Your task to perform on an android device: Search for a new eyeliner Image 0: 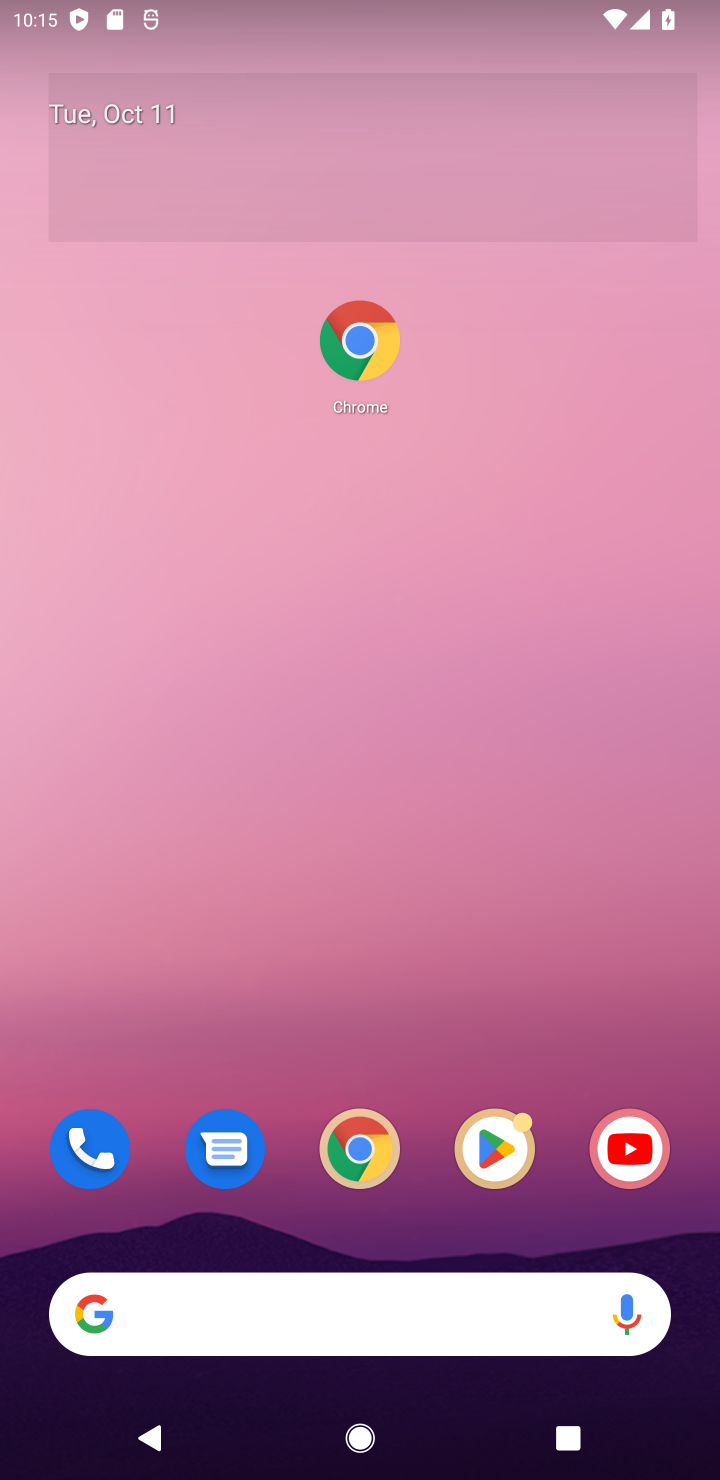
Step 0: drag from (337, 1276) to (567, 573)
Your task to perform on an android device: Search for a new eyeliner Image 1: 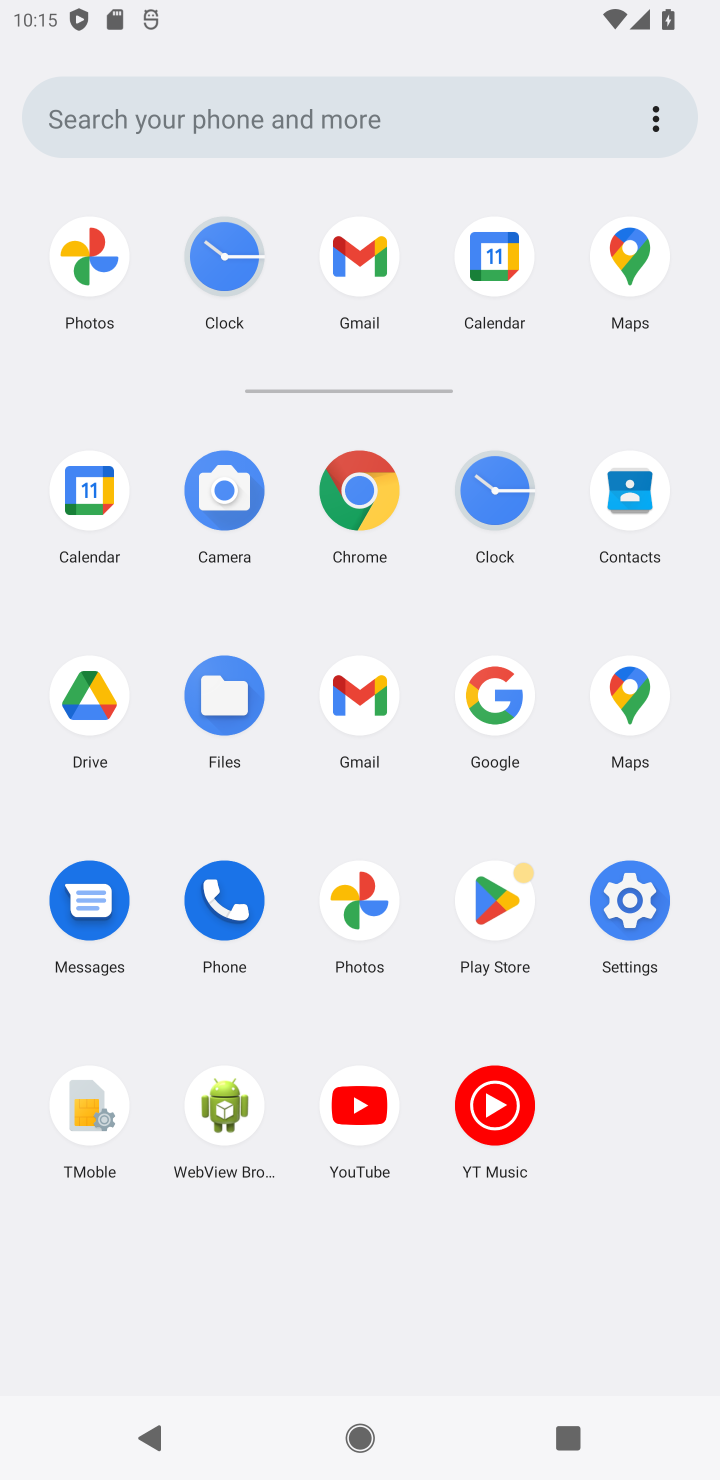
Step 1: click (372, 495)
Your task to perform on an android device: Search for a new eyeliner Image 2: 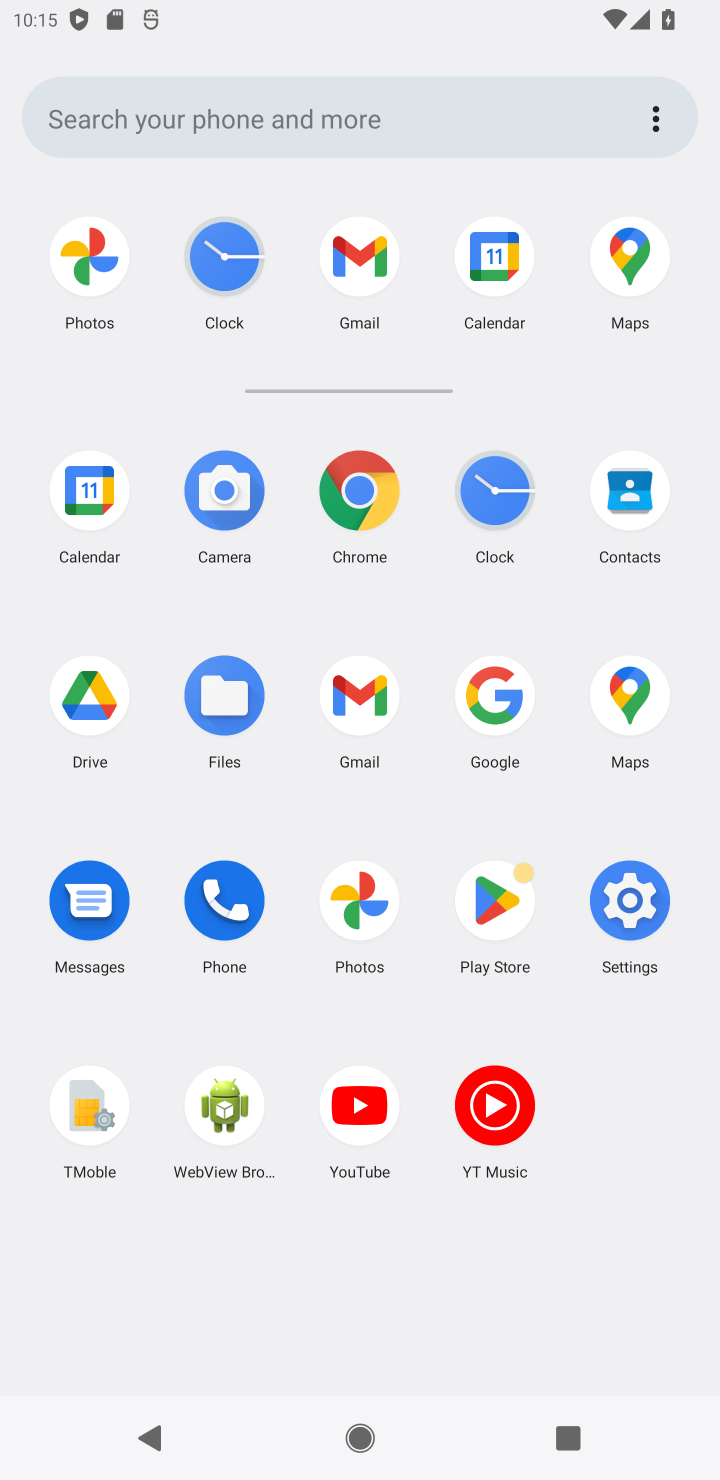
Step 2: click (345, 506)
Your task to perform on an android device: Search for a new eyeliner Image 3: 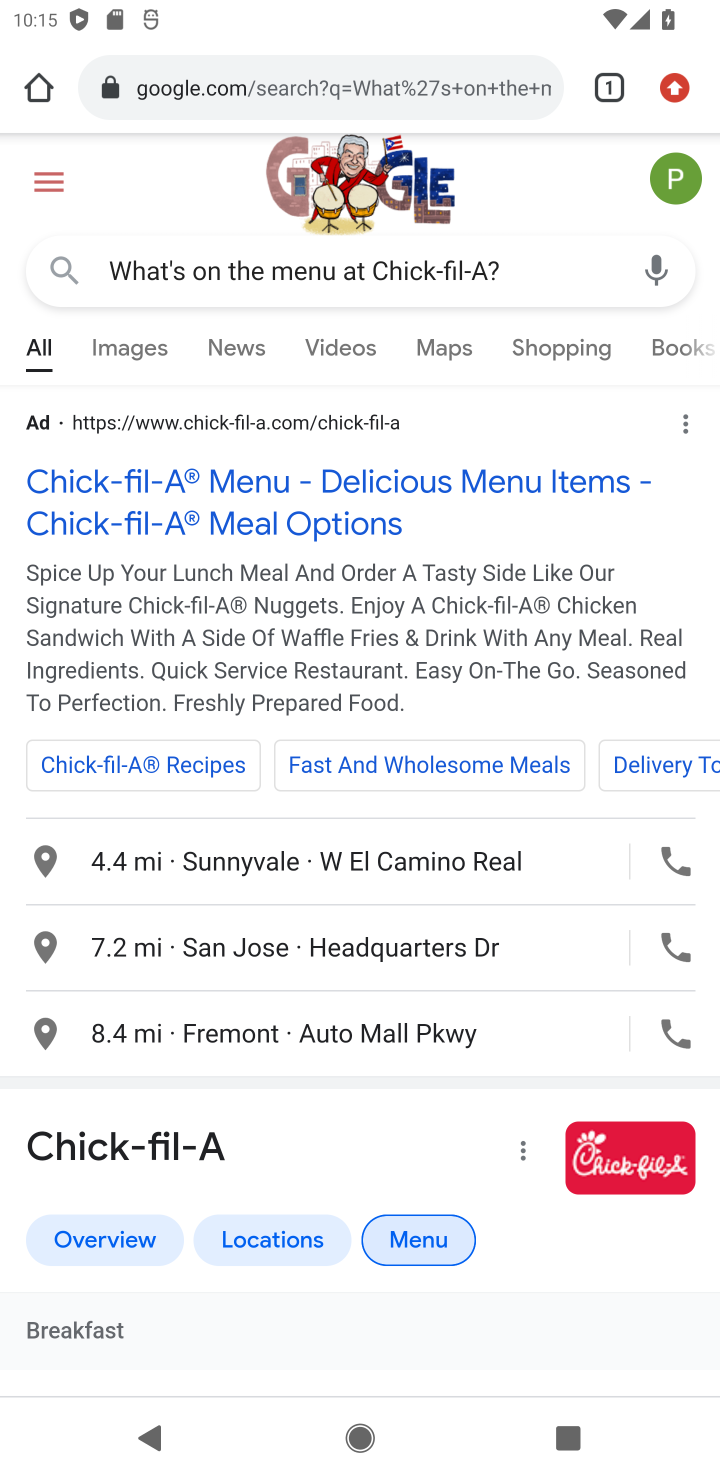
Step 3: click (397, 73)
Your task to perform on an android device: Search for a new eyeliner Image 4: 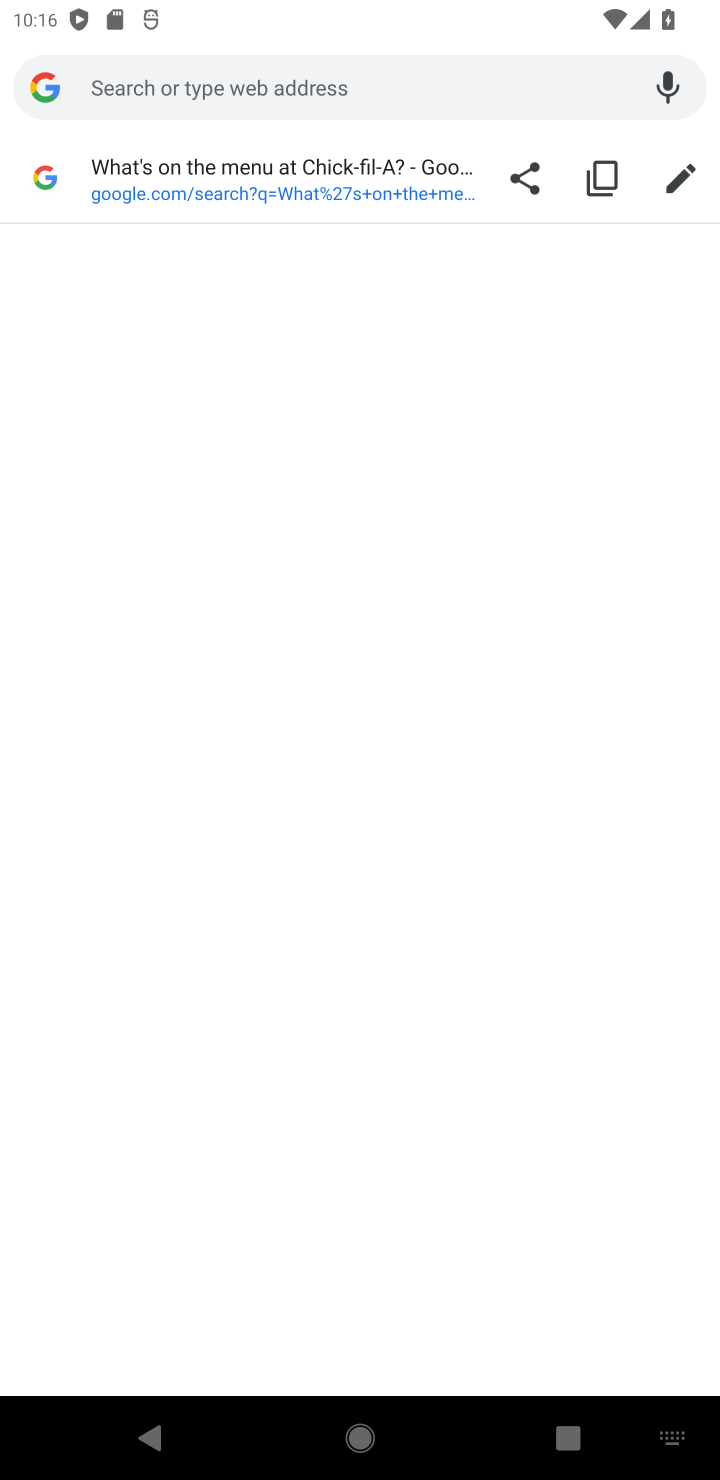
Step 4: type "a new eyeliner"
Your task to perform on an android device: Search for a new eyeliner Image 5: 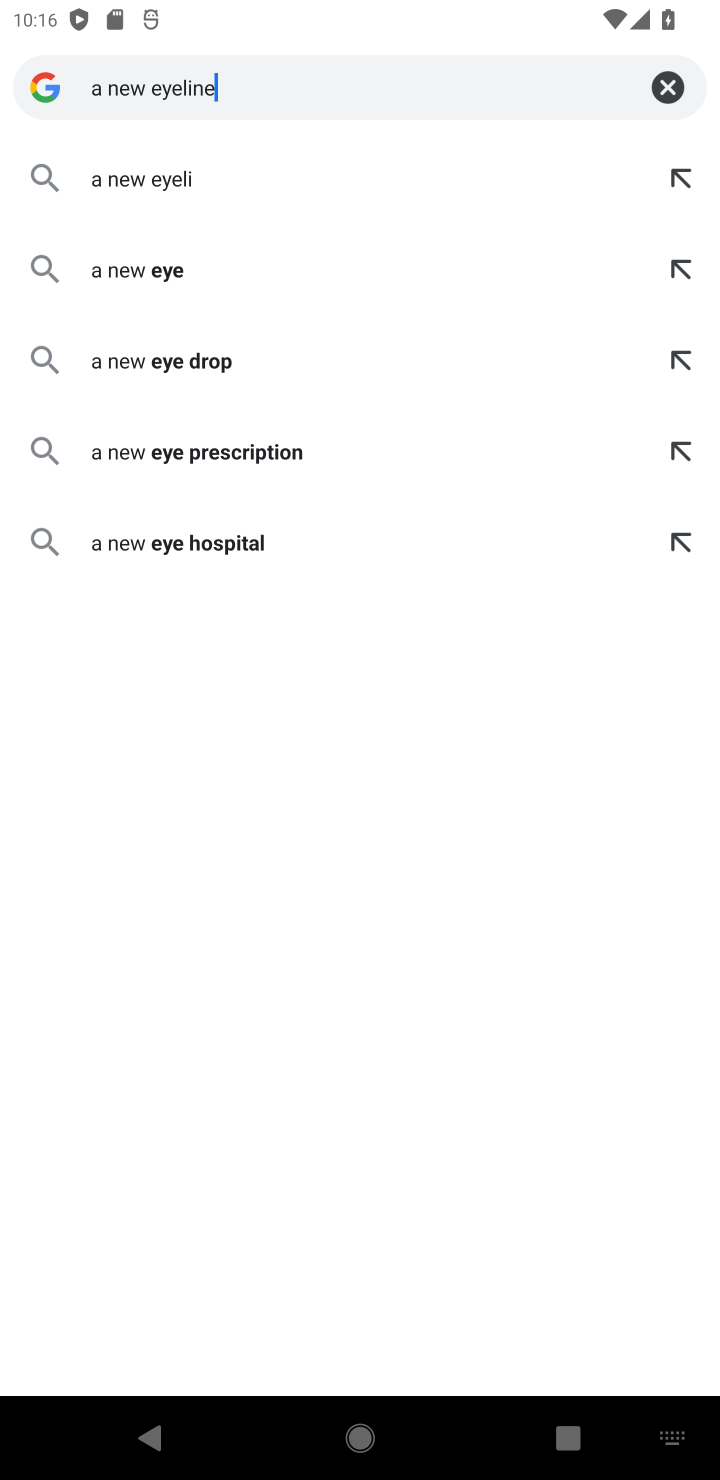
Step 5: press enter
Your task to perform on an android device: Search for a new eyeliner Image 6: 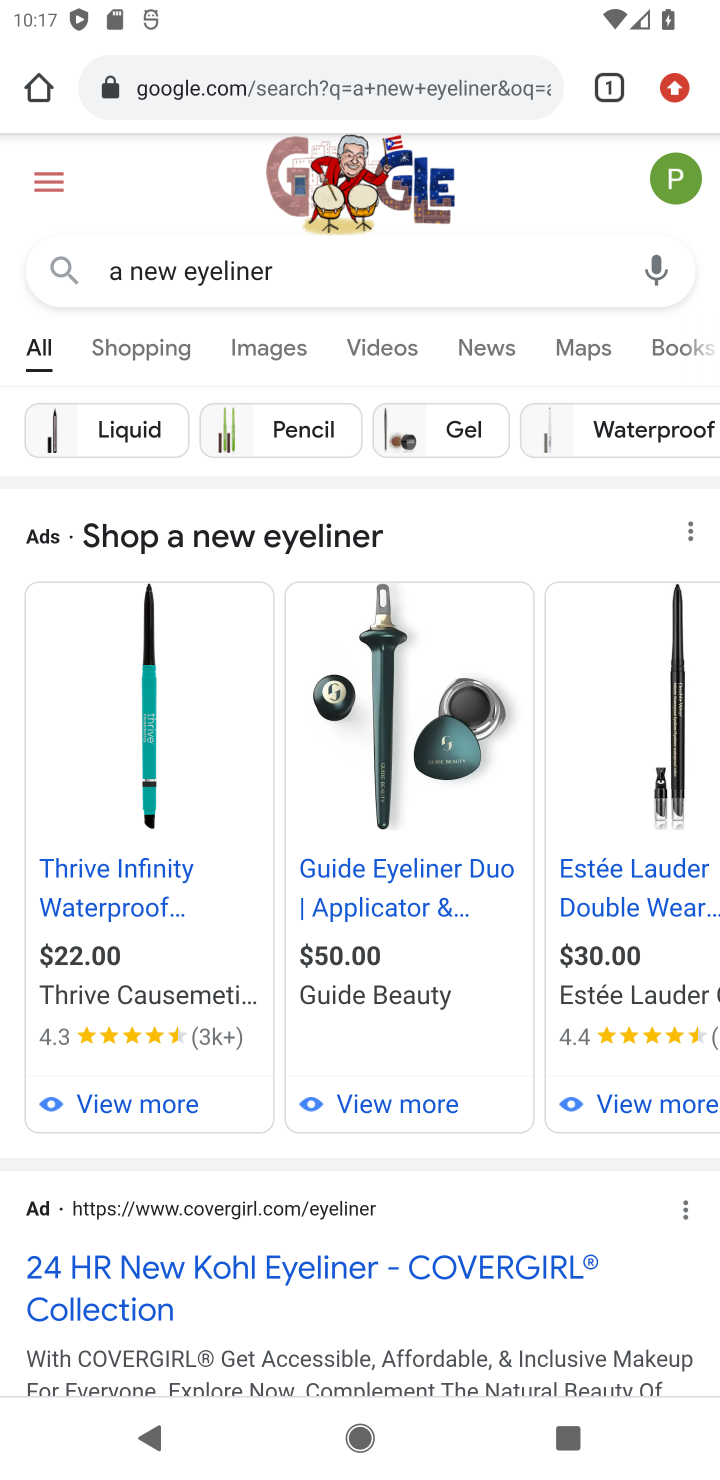
Step 6: task complete